Your task to perform on an android device: Go to notification settings Image 0: 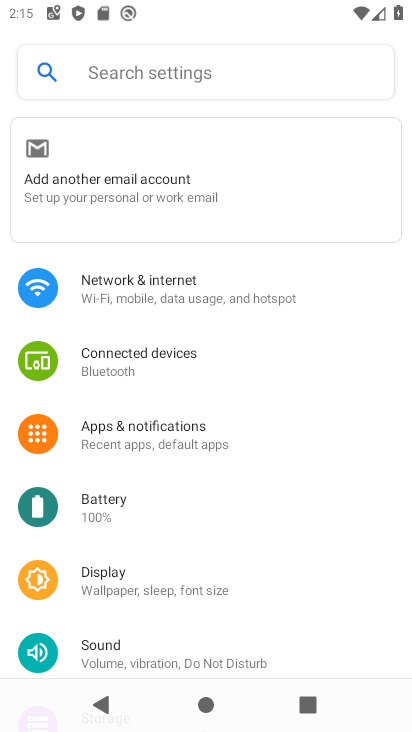
Step 0: click (184, 445)
Your task to perform on an android device: Go to notification settings Image 1: 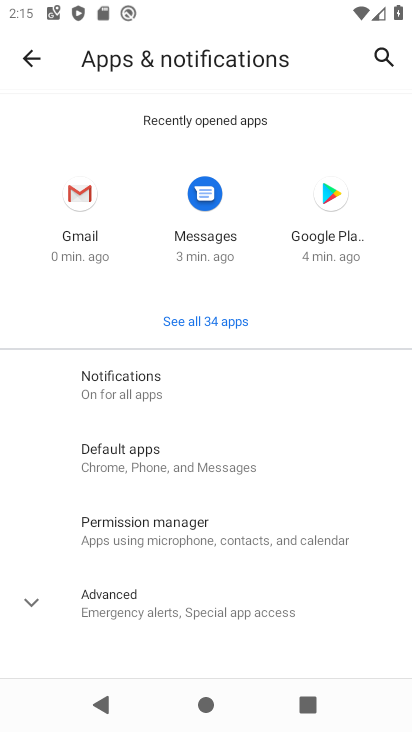
Step 1: click (106, 394)
Your task to perform on an android device: Go to notification settings Image 2: 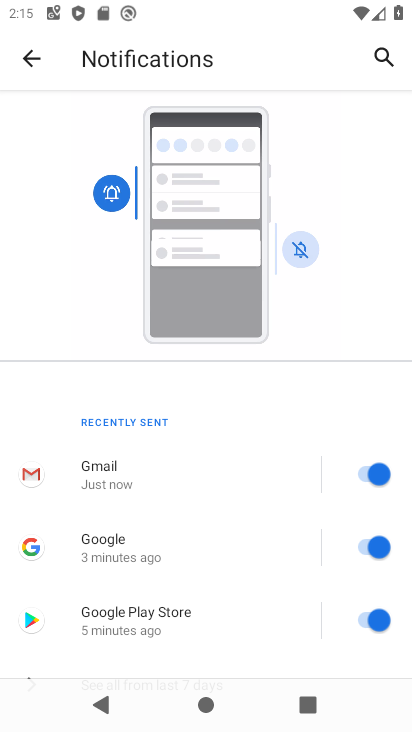
Step 2: task complete